Your task to perform on an android device: turn pop-ups on in chrome Image 0: 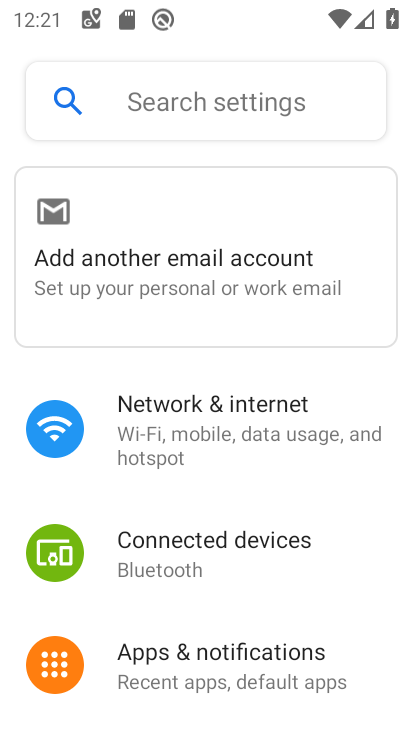
Step 0: press home button
Your task to perform on an android device: turn pop-ups on in chrome Image 1: 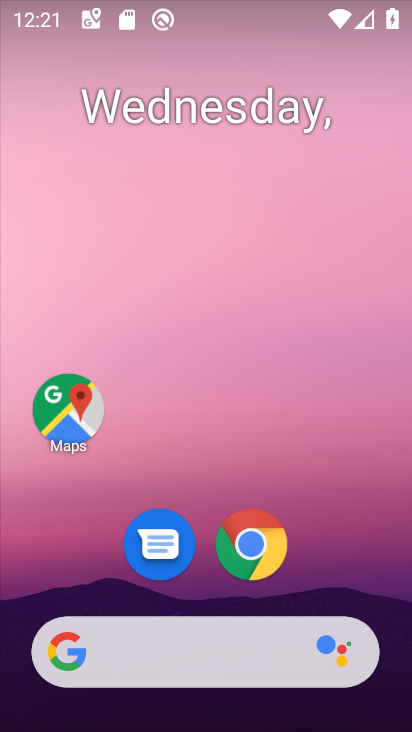
Step 1: drag from (181, 584) to (206, 230)
Your task to perform on an android device: turn pop-ups on in chrome Image 2: 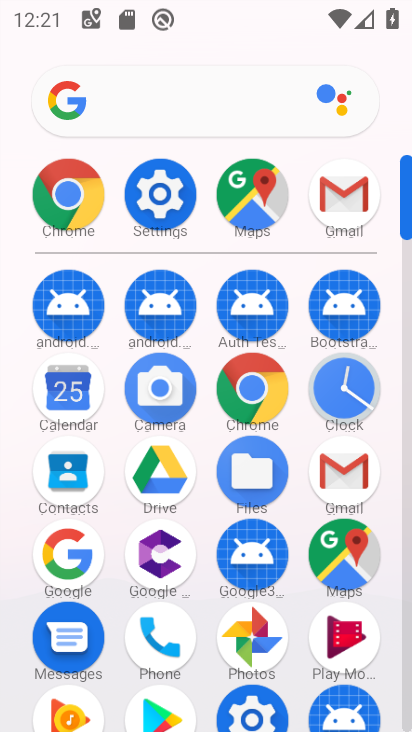
Step 2: click (245, 395)
Your task to perform on an android device: turn pop-ups on in chrome Image 3: 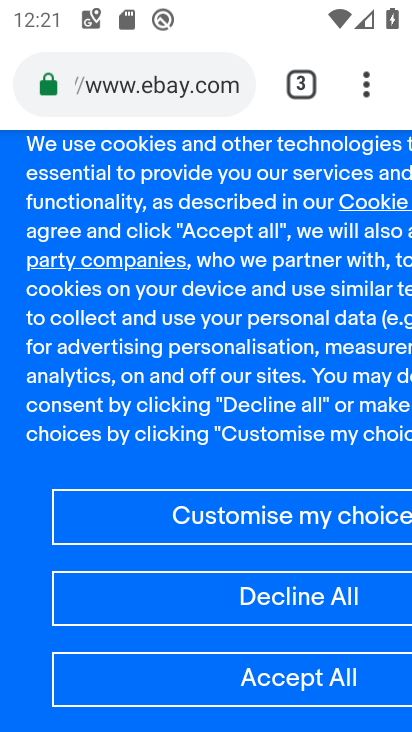
Step 3: click (374, 98)
Your task to perform on an android device: turn pop-ups on in chrome Image 4: 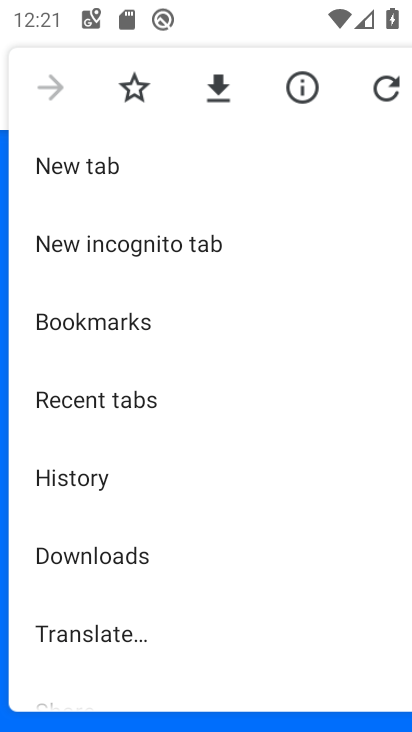
Step 4: drag from (230, 531) to (241, 194)
Your task to perform on an android device: turn pop-ups on in chrome Image 5: 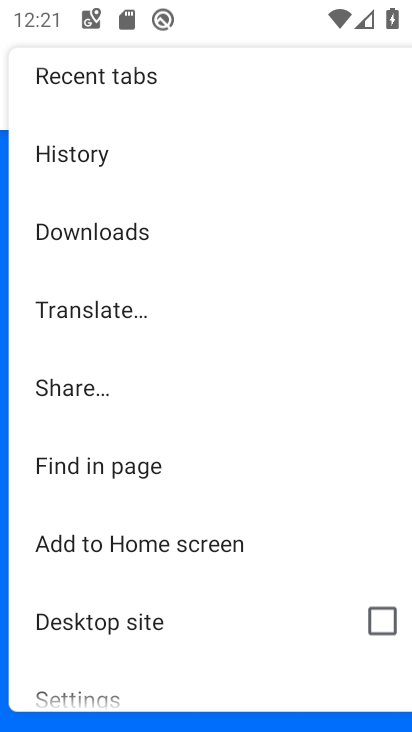
Step 5: drag from (171, 606) to (196, 323)
Your task to perform on an android device: turn pop-ups on in chrome Image 6: 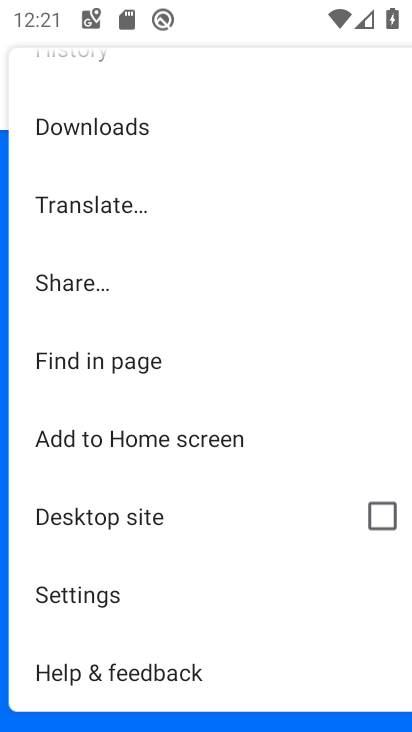
Step 6: click (127, 610)
Your task to perform on an android device: turn pop-ups on in chrome Image 7: 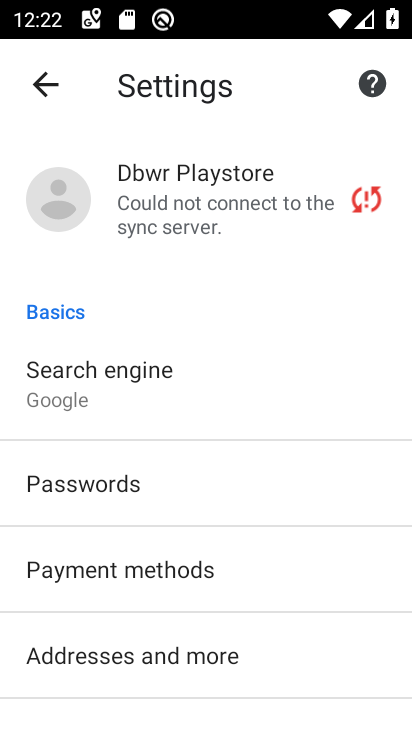
Step 7: drag from (161, 535) to (185, 254)
Your task to perform on an android device: turn pop-ups on in chrome Image 8: 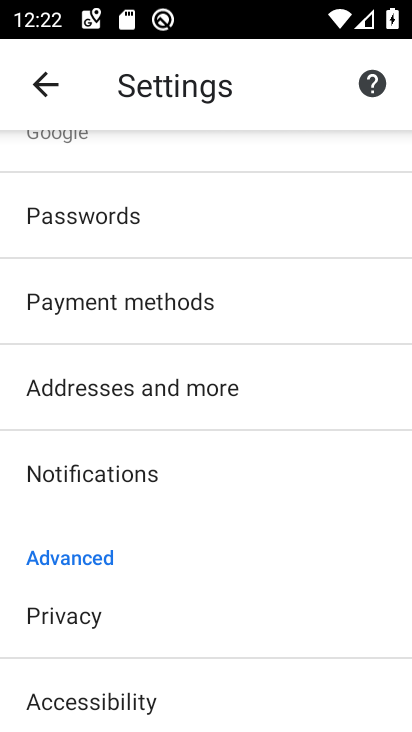
Step 8: drag from (206, 592) to (205, 332)
Your task to perform on an android device: turn pop-ups on in chrome Image 9: 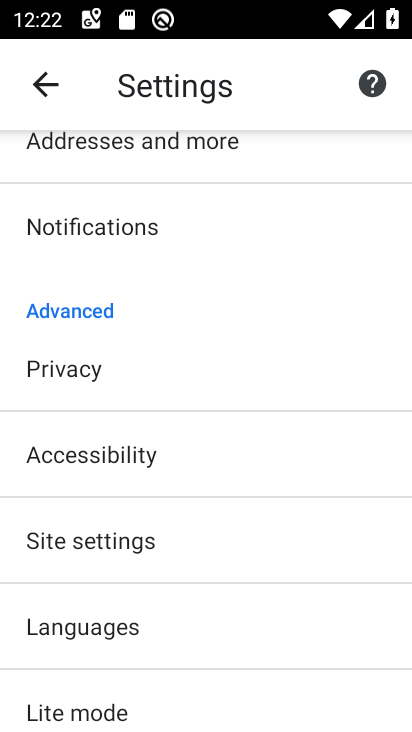
Step 9: click (150, 559)
Your task to perform on an android device: turn pop-ups on in chrome Image 10: 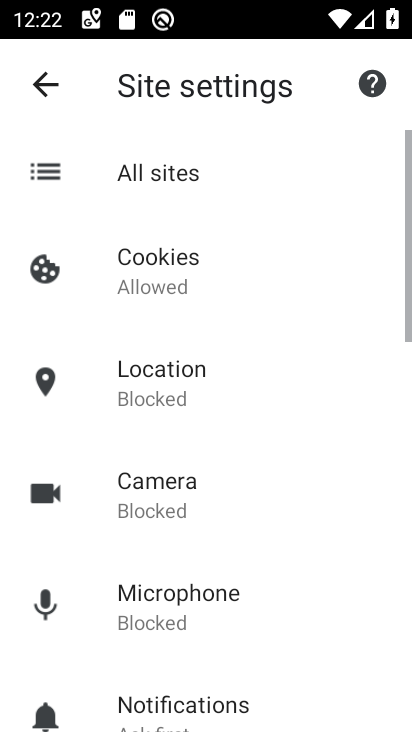
Step 10: drag from (150, 556) to (180, 289)
Your task to perform on an android device: turn pop-ups on in chrome Image 11: 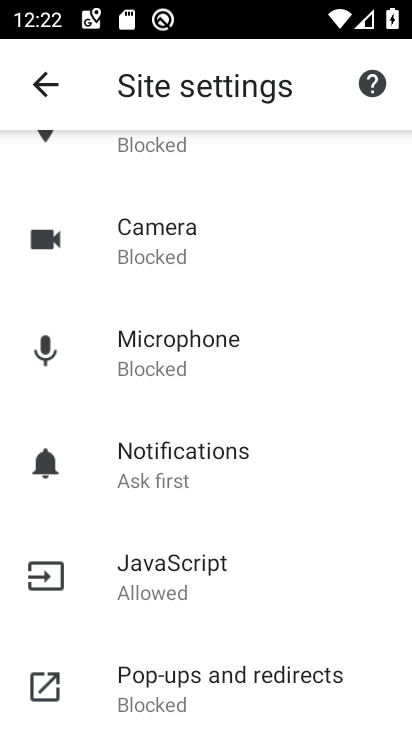
Step 11: drag from (174, 620) to (175, 407)
Your task to perform on an android device: turn pop-ups on in chrome Image 12: 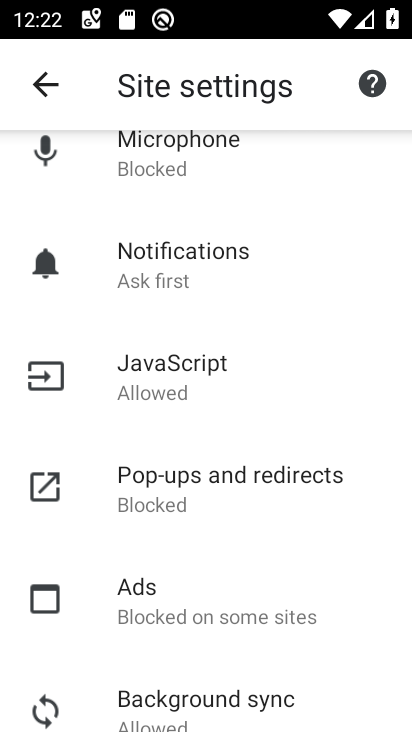
Step 12: click (183, 493)
Your task to perform on an android device: turn pop-ups on in chrome Image 13: 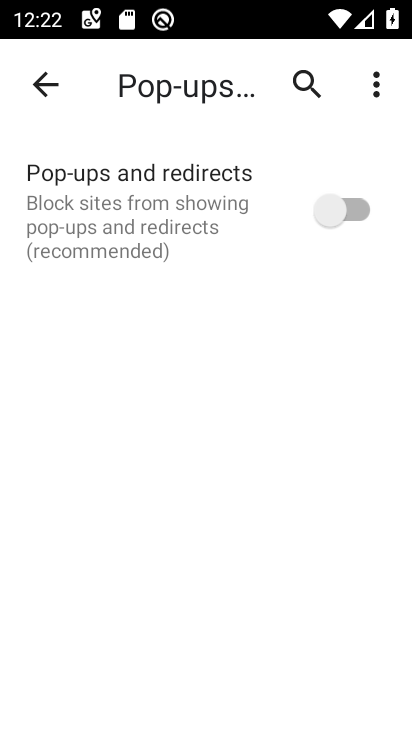
Step 13: click (315, 228)
Your task to perform on an android device: turn pop-ups on in chrome Image 14: 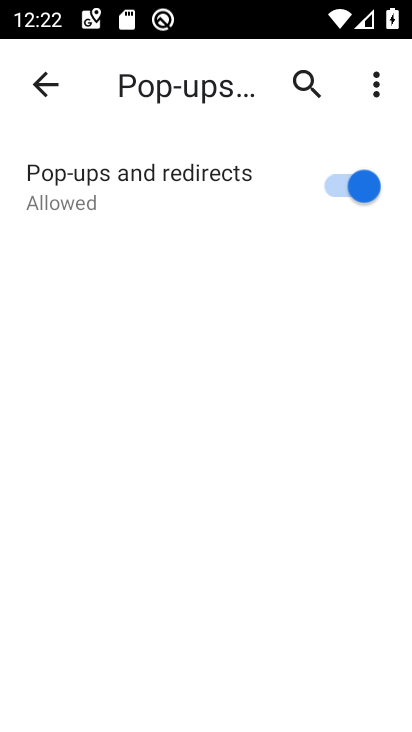
Step 14: task complete